Your task to perform on an android device: toggle javascript in the chrome app Image 0: 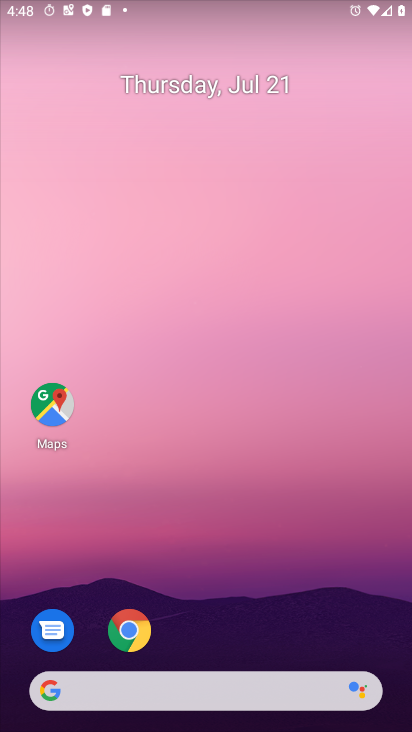
Step 0: click (128, 629)
Your task to perform on an android device: toggle javascript in the chrome app Image 1: 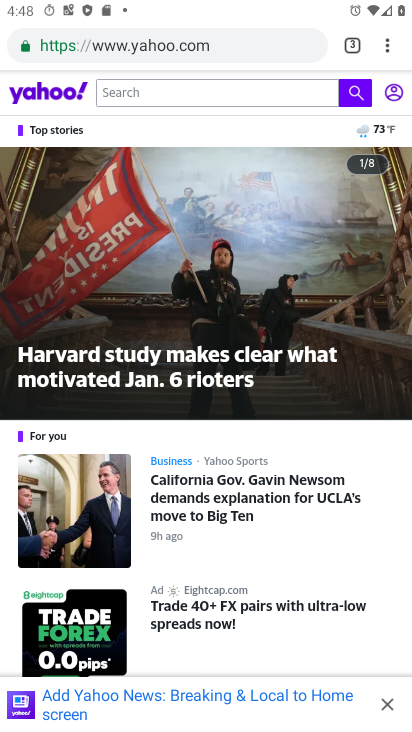
Step 1: click (388, 45)
Your task to perform on an android device: toggle javascript in the chrome app Image 2: 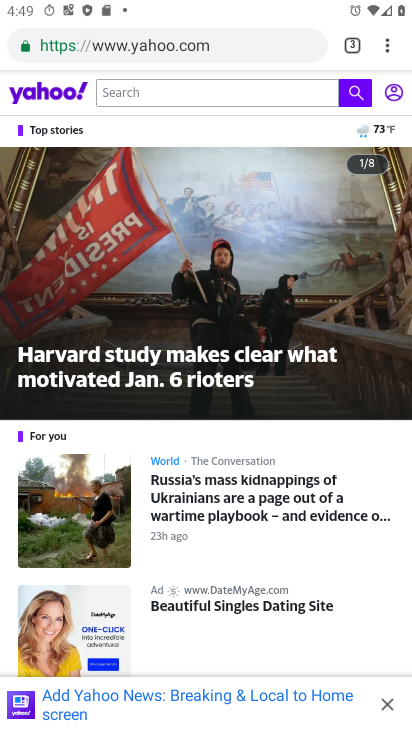
Step 2: click (388, 45)
Your task to perform on an android device: toggle javascript in the chrome app Image 3: 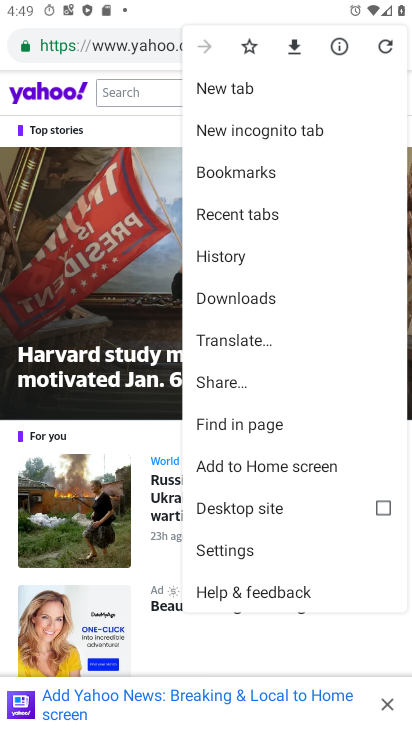
Step 3: click (229, 550)
Your task to perform on an android device: toggle javascript in the chrome app Image 4: 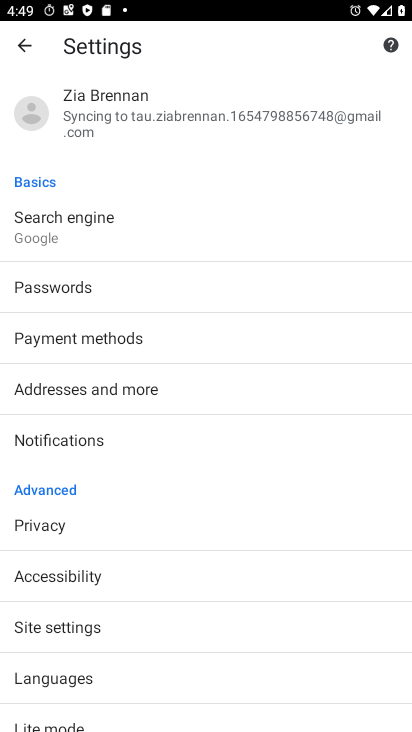
Step 4: click (63, 627)
Your task to perform on an android device: toggle javascript in the chrome app Image 5: 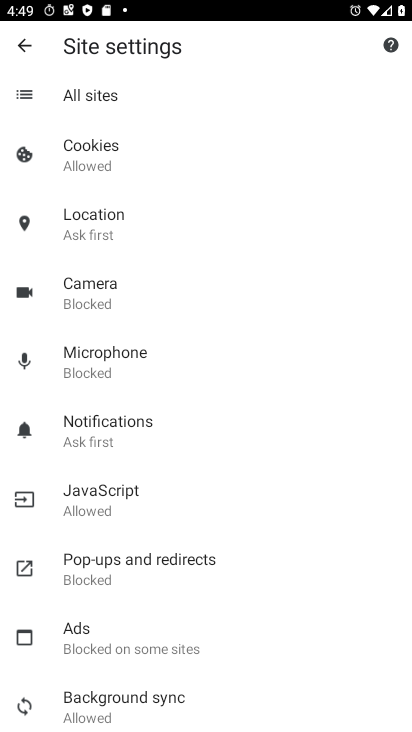
Step 5: click (102, 492)
Your task to perform on an android device: toggle javascript in the chrome app Image 6: 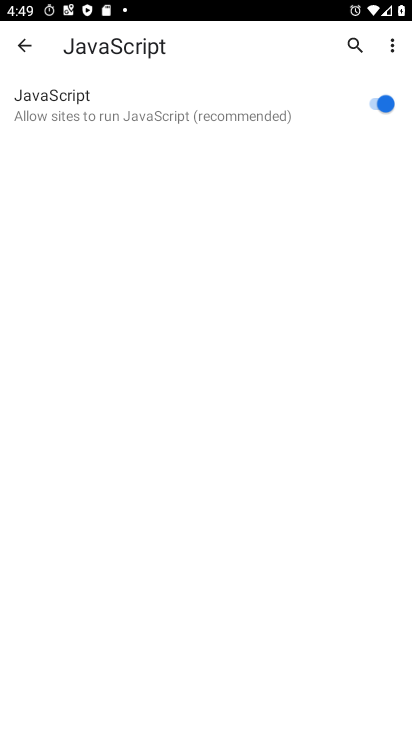
Step 6: click (379, 103)
Your task to perform on an android device: toggle javascript in the chrome app Image 7: 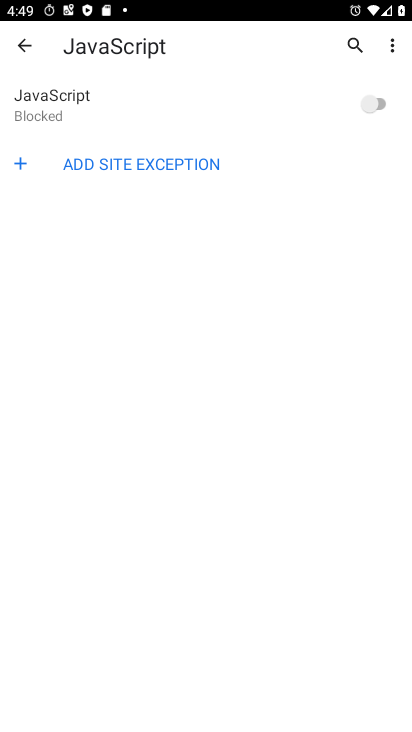
Step 7: task complete